Your task to perform on an android device: turn on wifi Image 0: 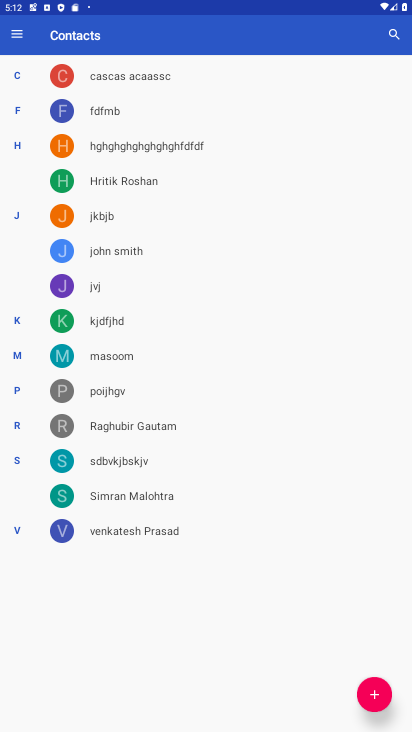
Step 0: drag from (205, 11) to (170, 634)
Your task to perform on an android device: turn on wifi Image 1: 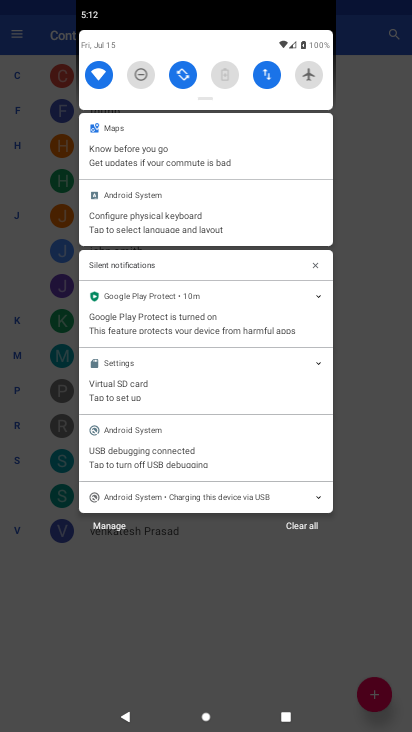
Step 1: task complete